Your task to perform on an android device: open app "Pluto TV - Live TV and Movies" (install if not already installed), go to login, and select forgot password Image 0: 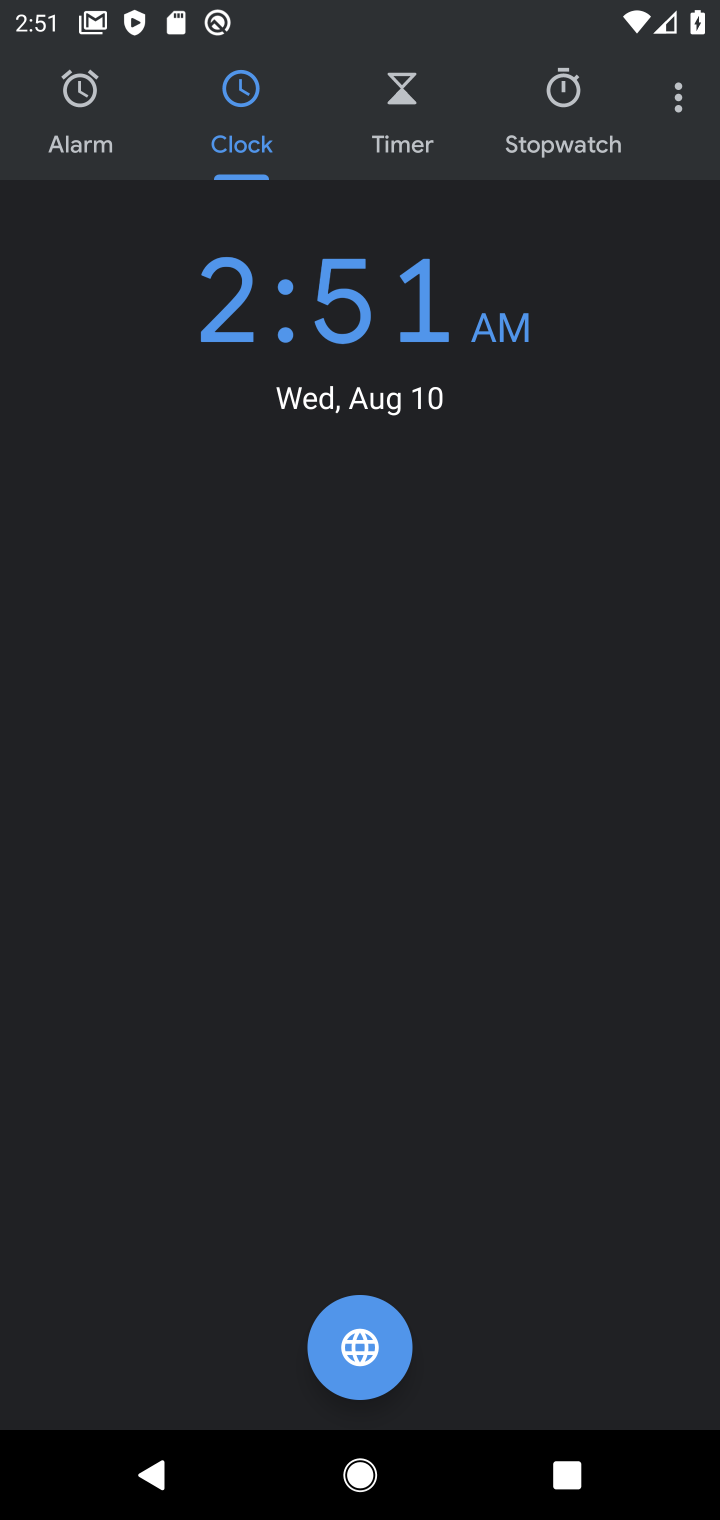
Step 0: press home button
Your task to perform on an android device: open app "Pluto TV - Live TV and Movies" (install if not already installed), go to login, and select forgot password Image 1: 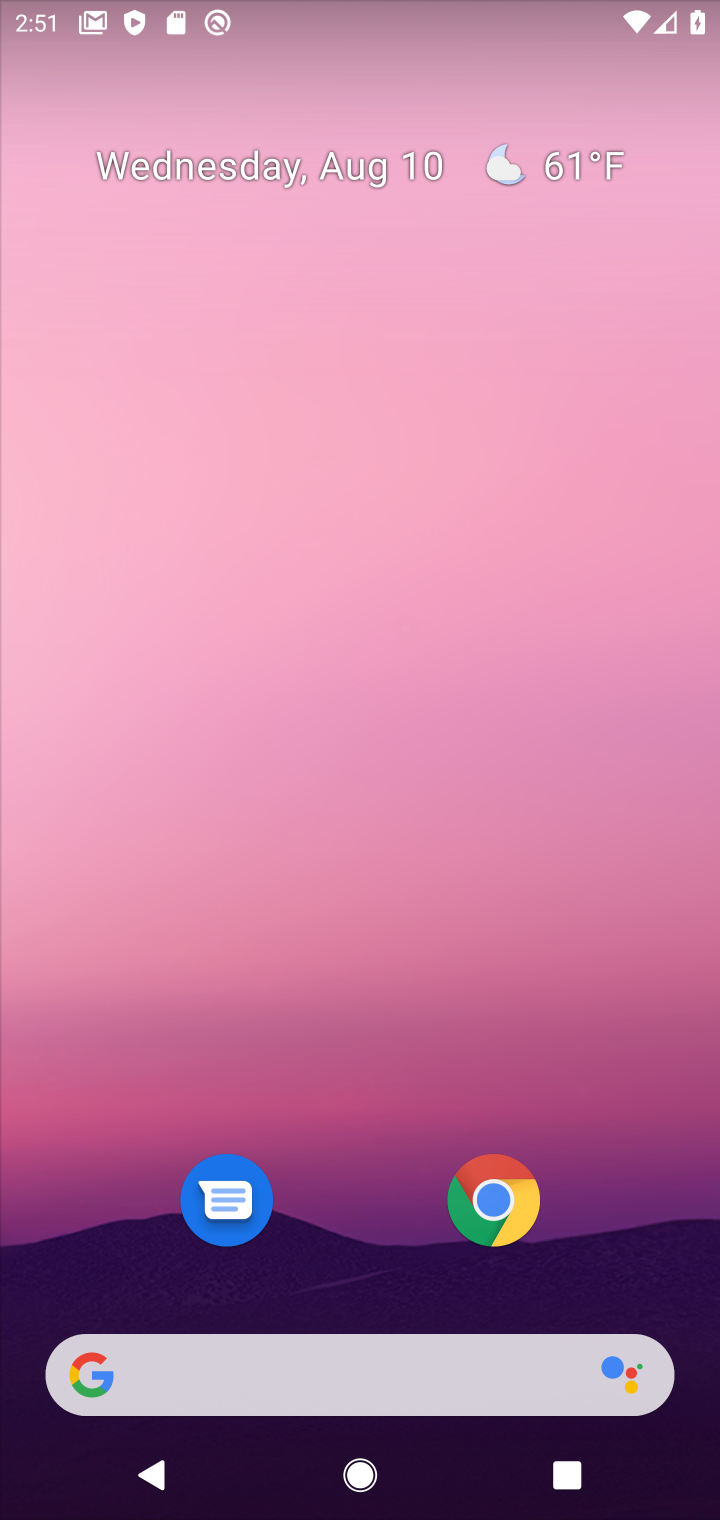
Step 1: drag from (278, 873) to (205, 238)
Your task to perform on an android device: open app "Pluto TV - Live TV and Movies" (install if not already installed), go to login, and select forgot password Image 2: 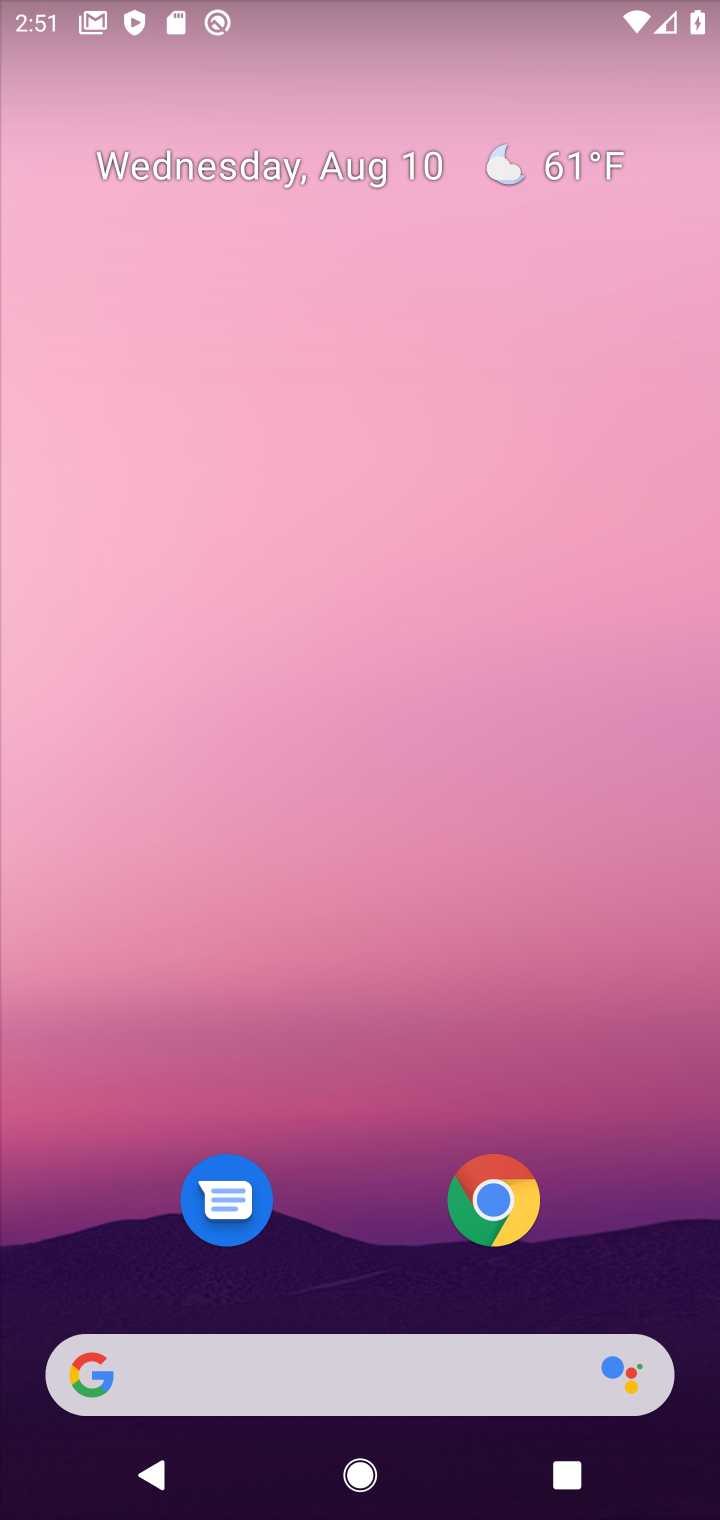
Step 2: drag from (368, 1235) to (318, 417)
Your task to perform on an android device: open app "Pluto TV - Live TV and Movies" (install if not already installed), go to login, and select forgot password Image 3: 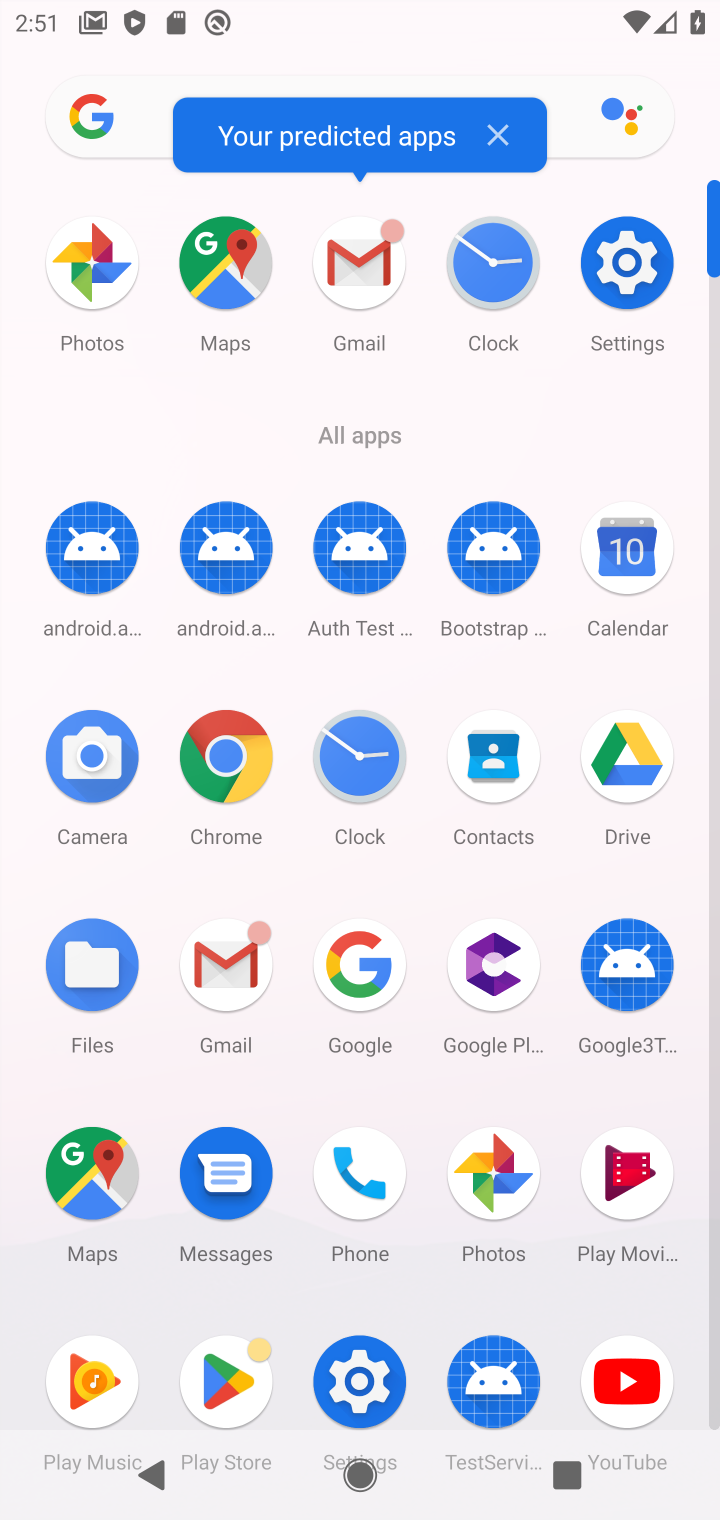
Step 3: click (213, 1398)
Your task to perform on an android device: open app "Pluto TV - Live TV and Movies" (install if not already installed), go to login, and select forgot password Image 4: 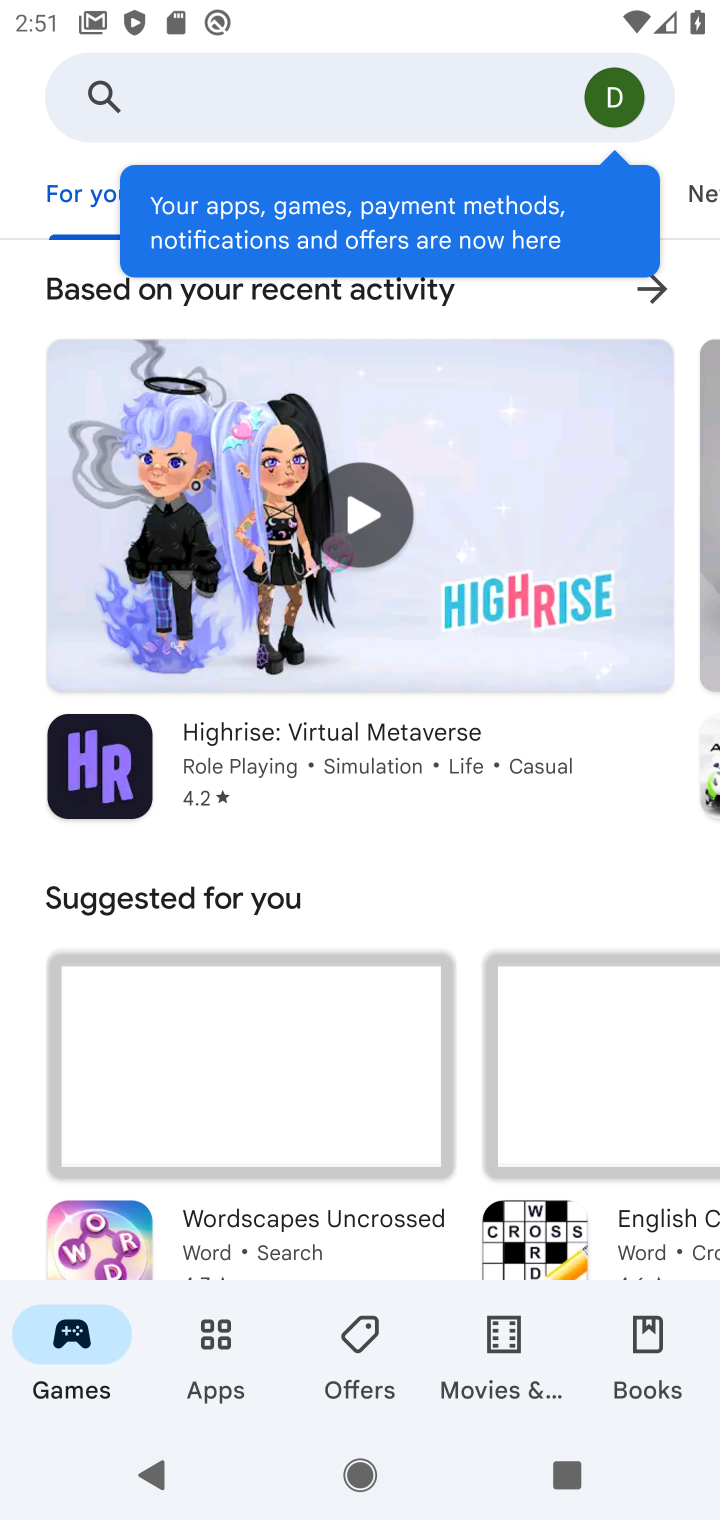
Step 4: click (329, 100)
Your task to perform on an android device: open app "Pluto TV - Live TV and Movies" (install if not already installed), go to login, and select forgot password Image 5: 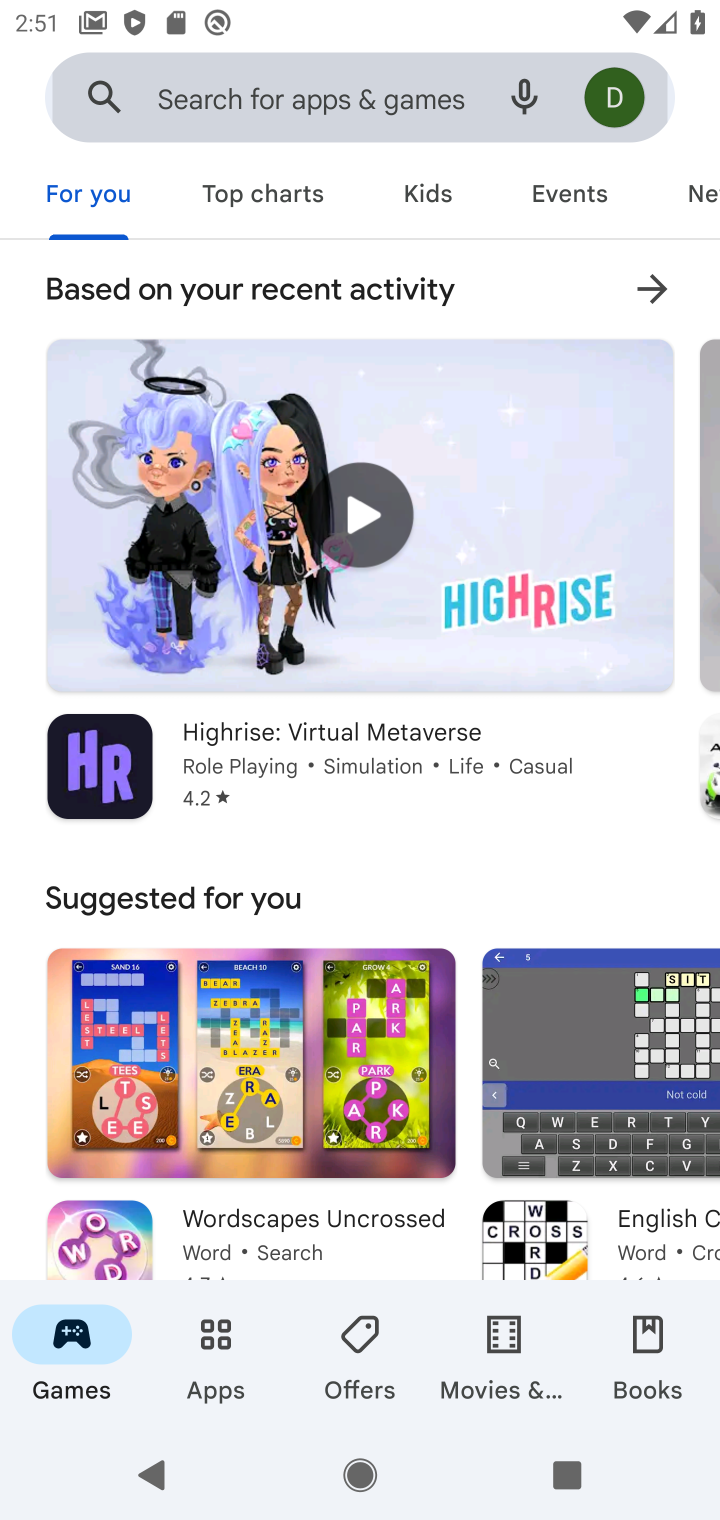
Step 5: click (327, 99)
Your task to perform on an android device: open app "Pluto TV - Live TV and Movies" (install if not already installed), go to login, and select forgot password Image 6: 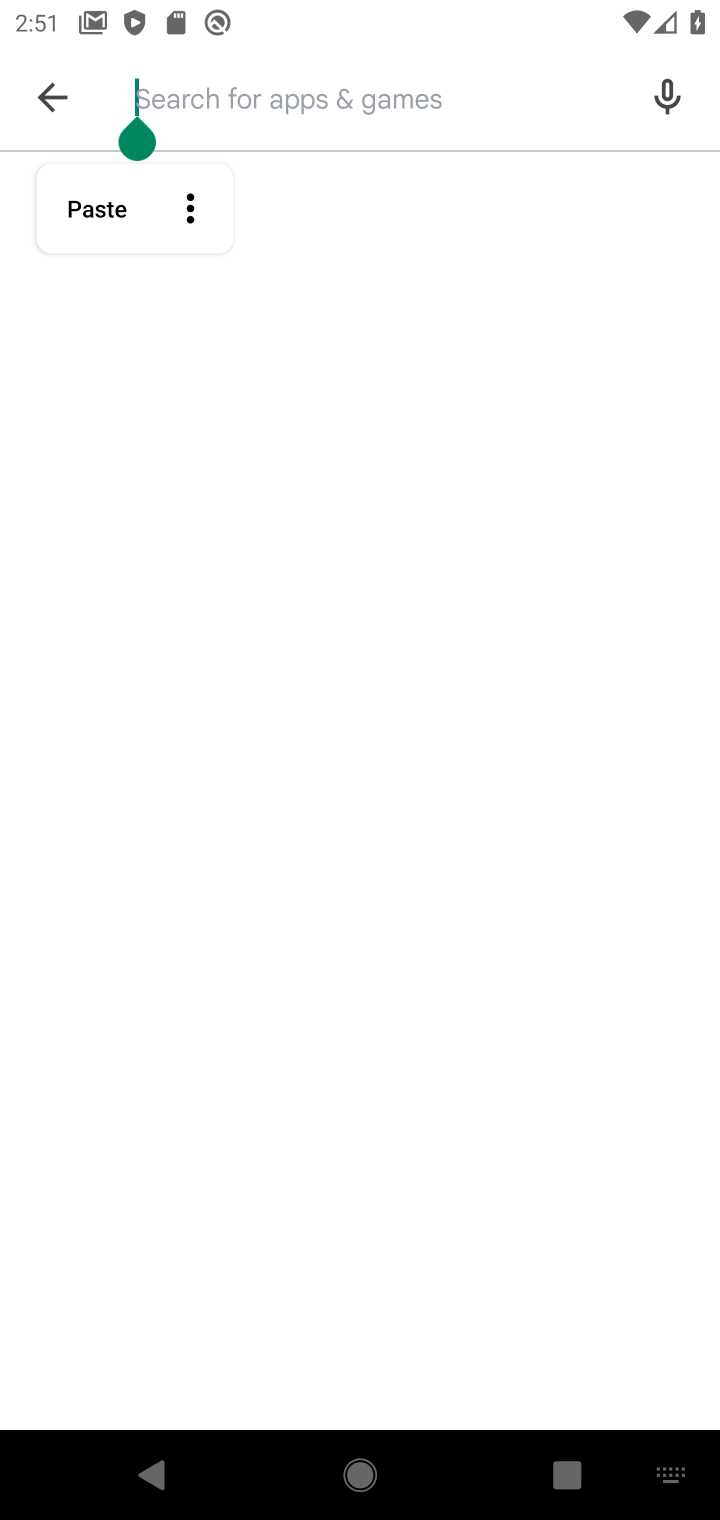
Step 6: click (327, 99)
Your task to perform on an android device: open app "Pluto TV - Live TV and Movies" (install if not already installed), go to login, and select forgot password Image 7: 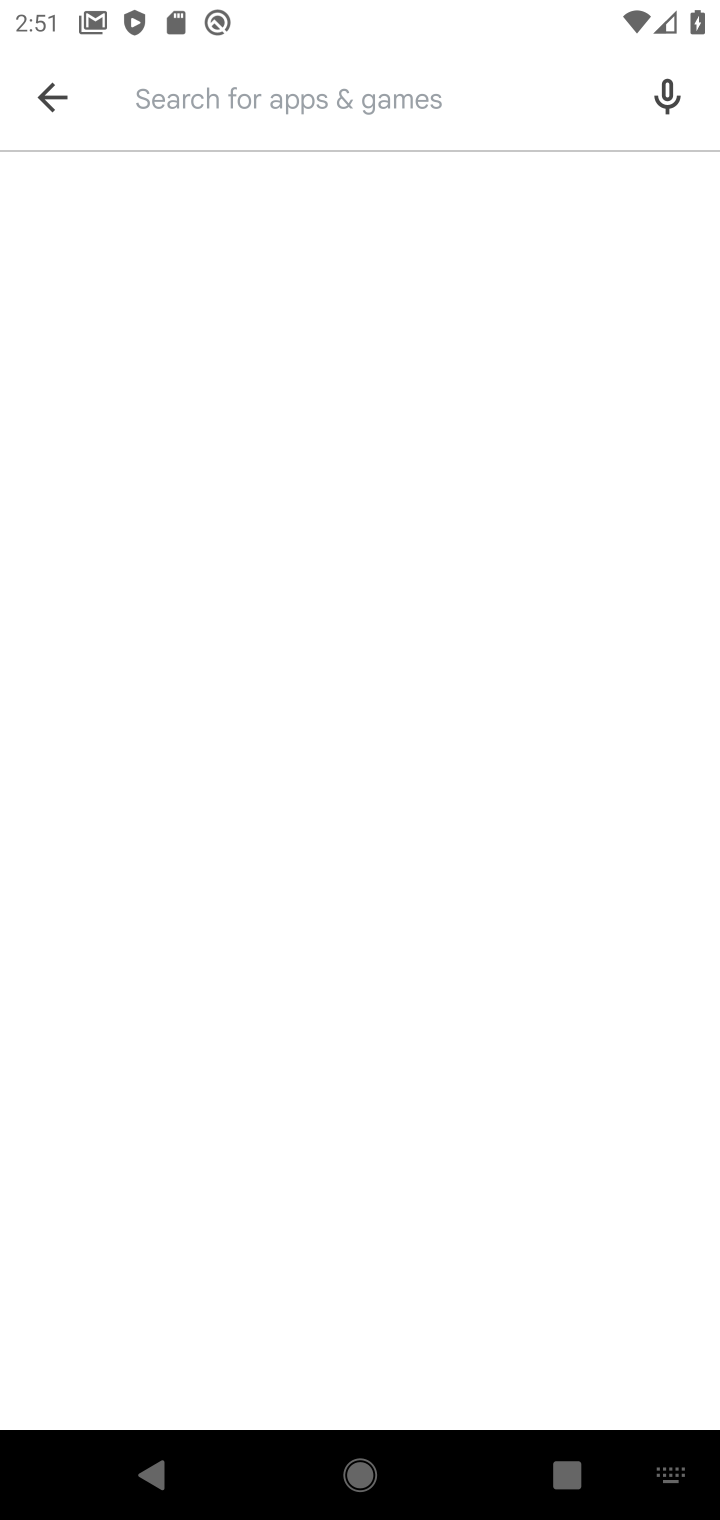
Step 7: type "Pluto TV - Live TV and Movies"
Your task to perform on an android device: open app "Pluto TV - Live TV and Movies" (install if not already installed), go to login, and select forgot password Image 8: 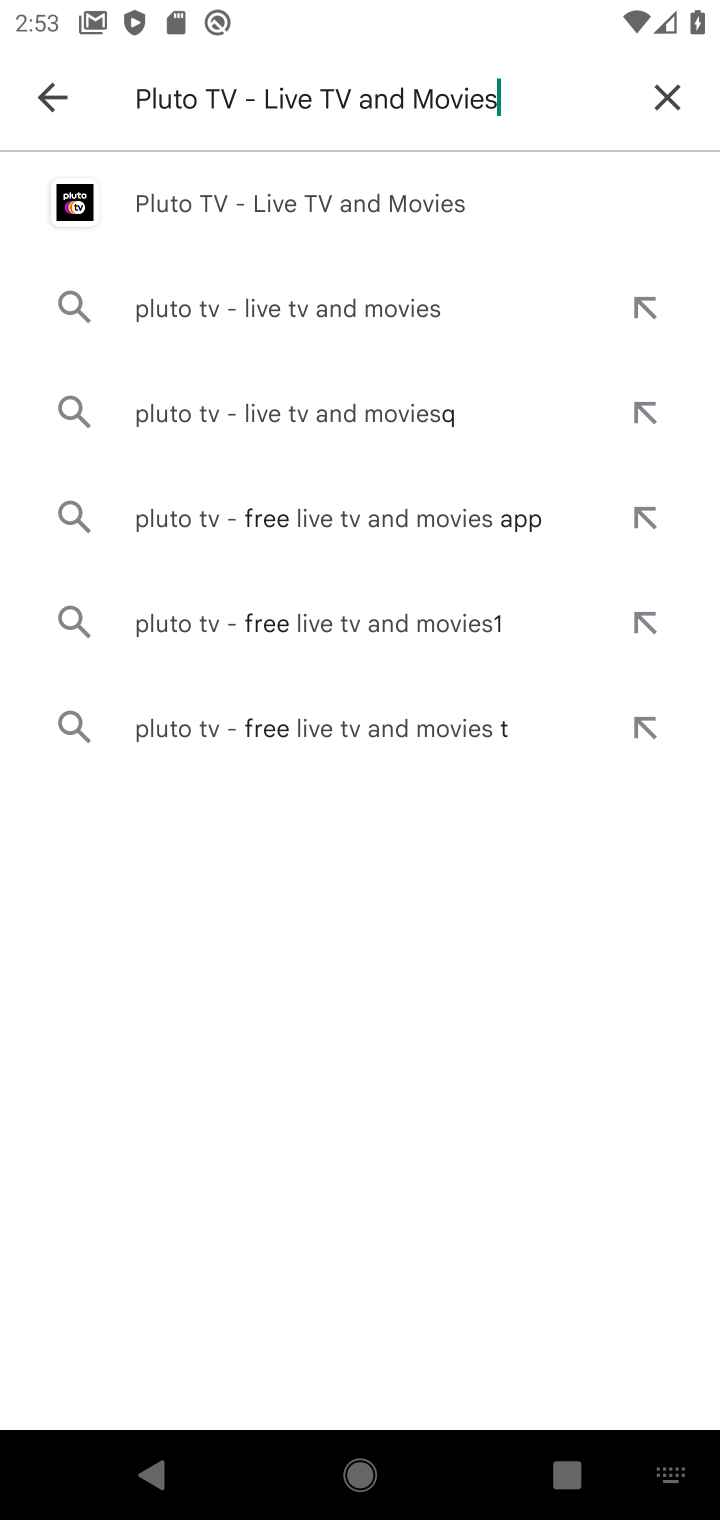
Step 8: click (384, 219)
Your task to perform on an android device: open app "Pluto TV - Live TV and Movies" (install if not already installed), go to login, and select forgot password Image 9: 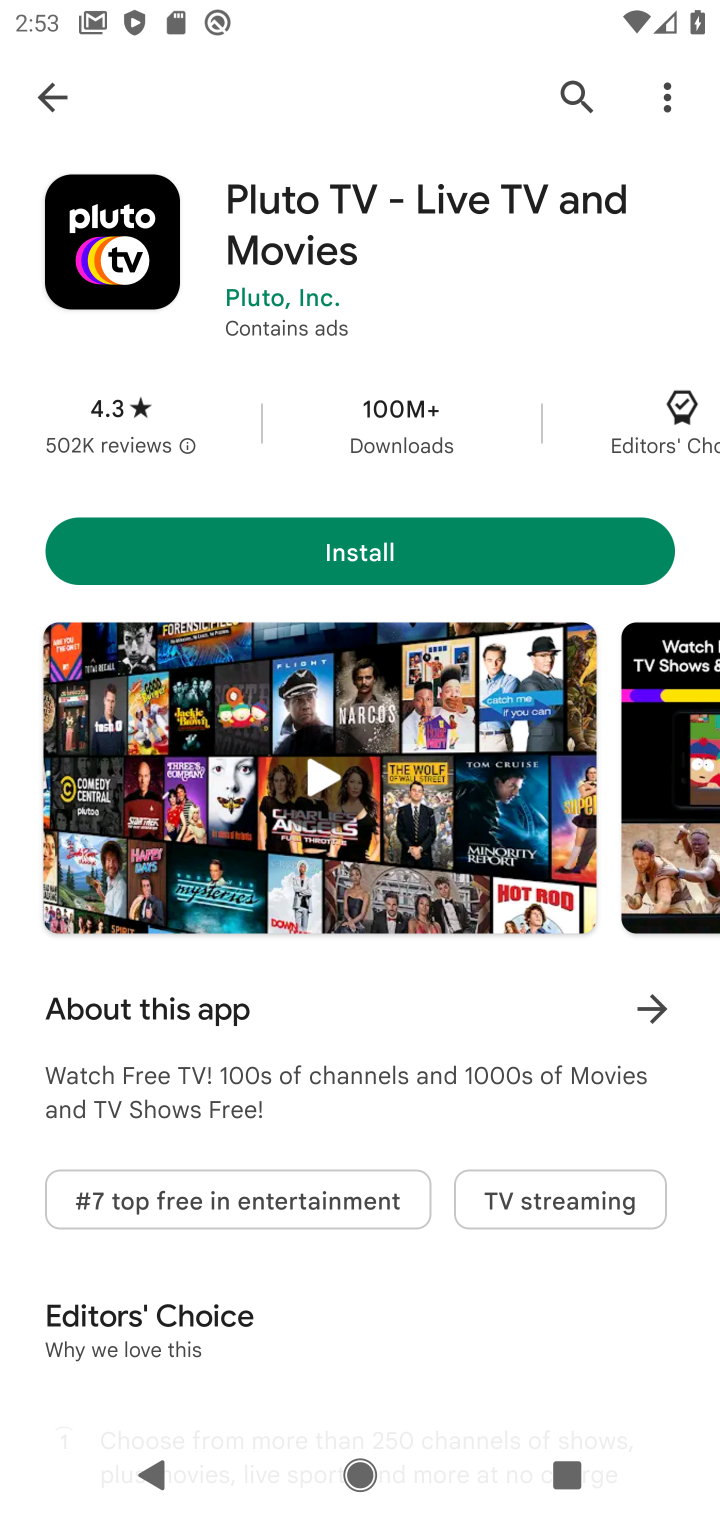
Step 9: click (312, 558)
Your task to perform on an android device: open app "Pluto TV - Live TV and Movies" (install if not already installed), go to login, and select forgot password Image 10: 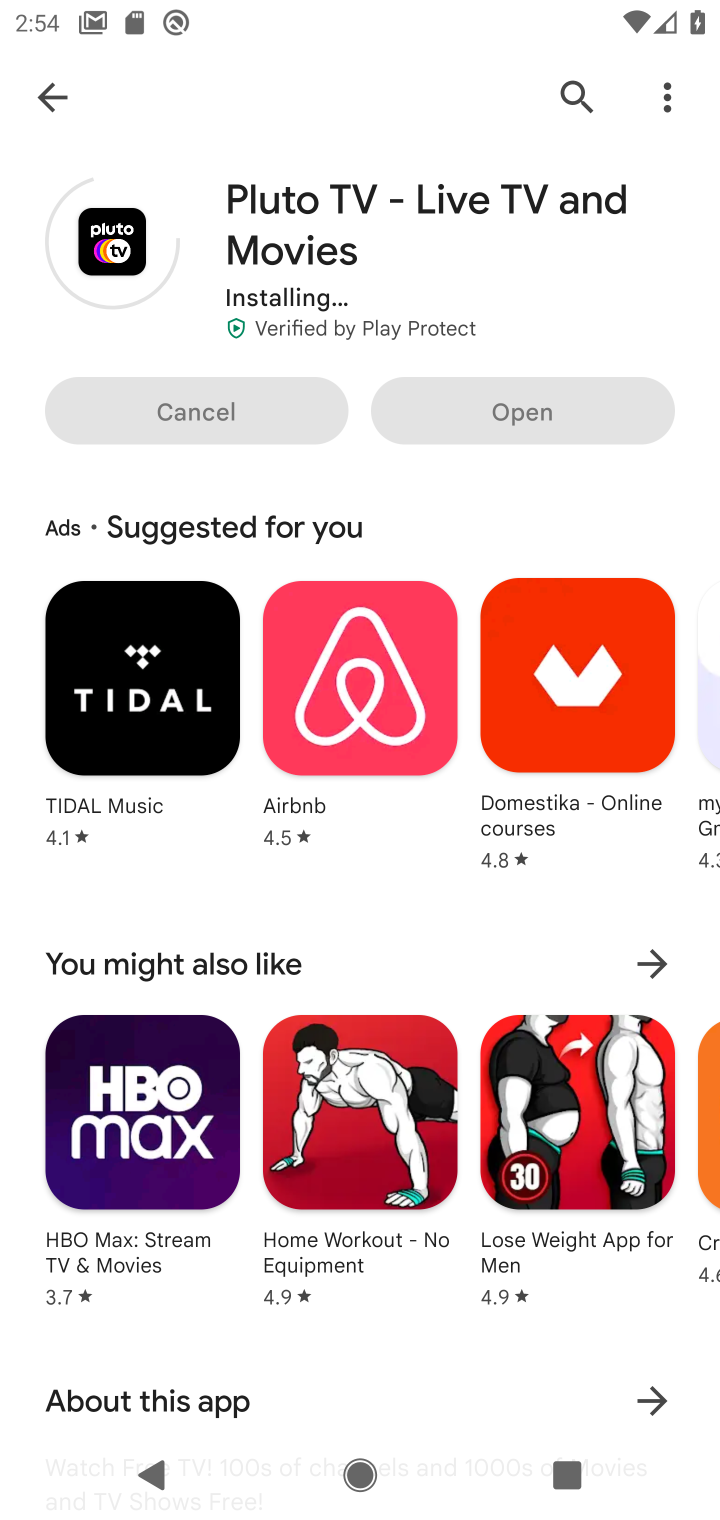
Step 10: task complete